Your task to perform on an android device: Open settings Image 0: 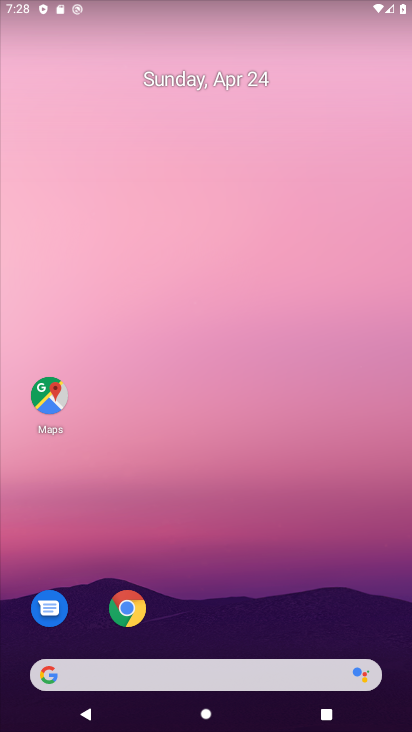
Step 0: drag from (260, 425) to (278, 87)
Your task to perform on an android device: Open settings Image 1: 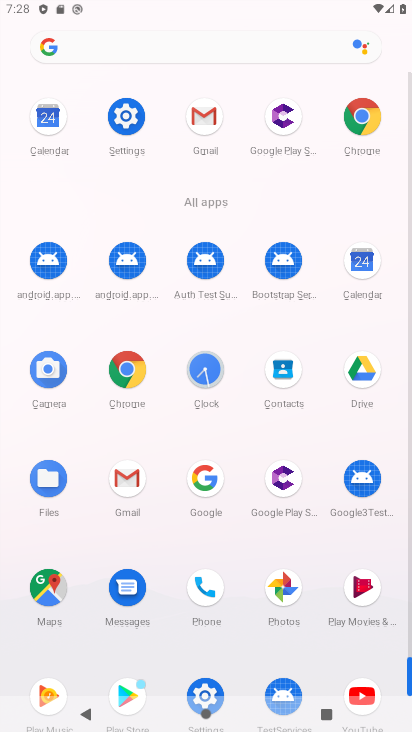
Step 1: click (126, 105)
Your task to perform on an android device: Open settings Image 2: 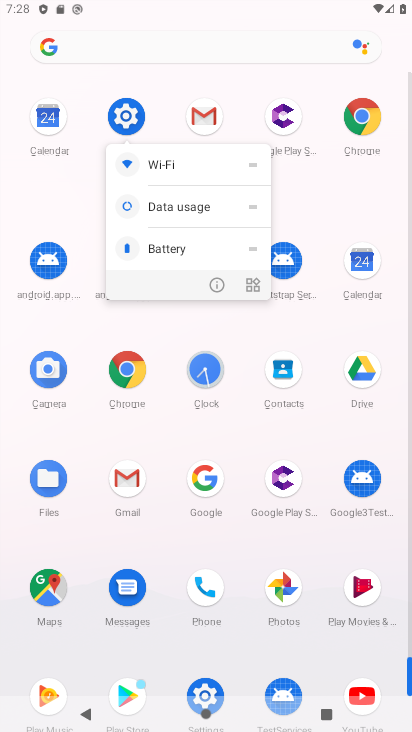
Step 2: click (126, 108)
Your task to perform on an android device: Open settings Image 3: 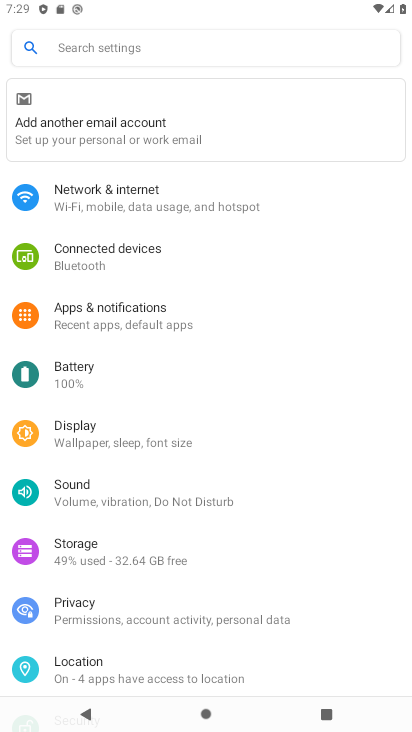
Step 3: task complete